Your task to perform on an android device: Show me recent news Image 0: 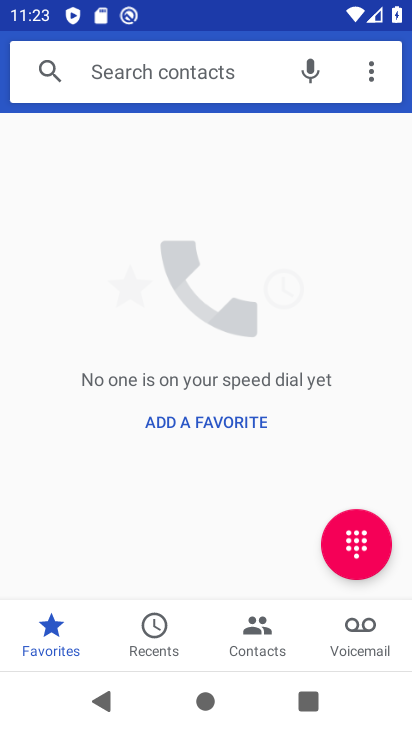
Step 0: press home button
Your task to perform on an android device: Show me recent news Image 1: 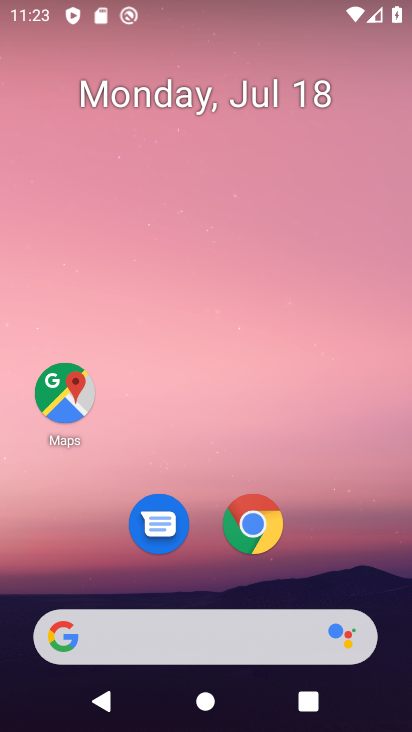
Step 1: click (250, 642)
Your task to perform on an android device: Show me recent news Image 2: 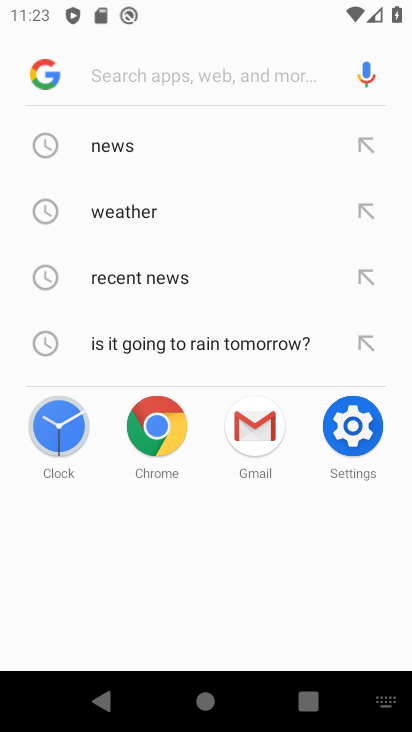
Step 2: click (165, 275)
Your task to perform on an android device: Show me recent news Image 3: 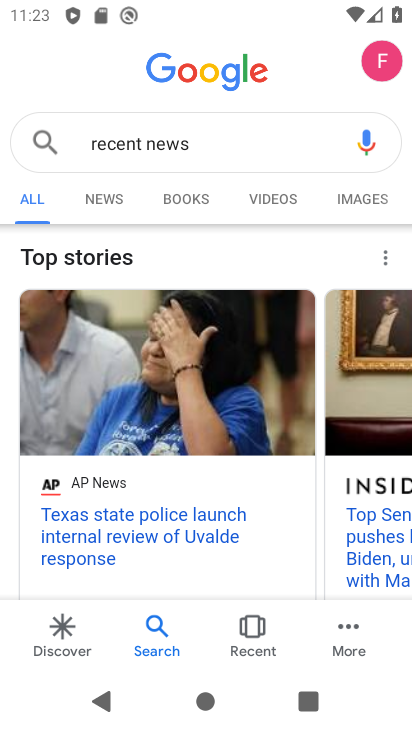
Step 3: task complete